Your task to perform on an android device: Open Google Chrome and click the shortcut for Amazon.com Image 0: 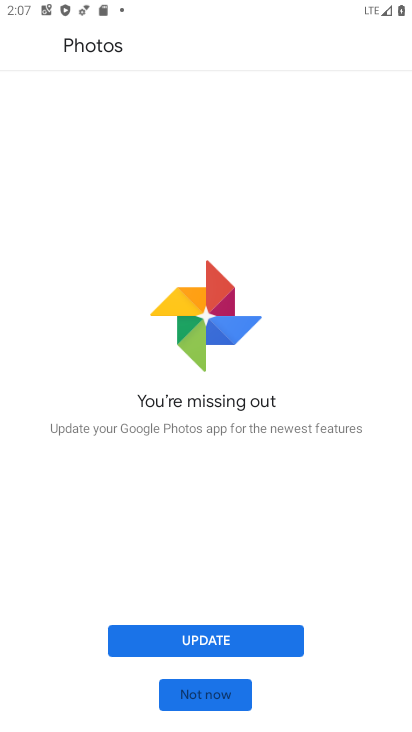
Step 0: press home button
Your task to perform on an android device: Open Google Chrome and click the shortcut for Amazon.com Image 1: 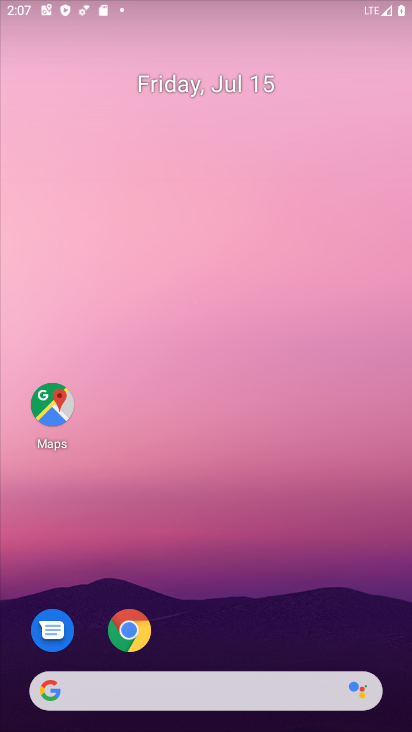
Step 1: drag from (173, 638) to (142, 282)
Your task to perform on an android device: Open Google Chrome and click the shortcut for Amazon.com Image 2: 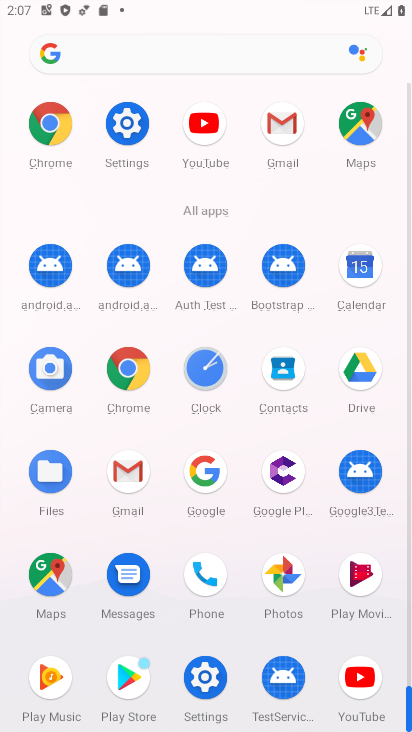
Step 2: click (119, 372)
Your task to perform on an android device: Open Google Chrome and click the shortcut for Amazon.com Image 3: 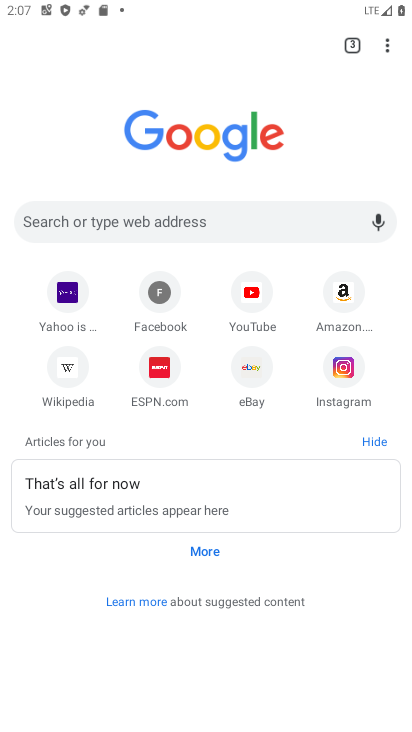
Step 3: click (337, 301)
Your task to perform on an android device: Open Google Chrome and click the shortcut for Amazon.com Image 4: 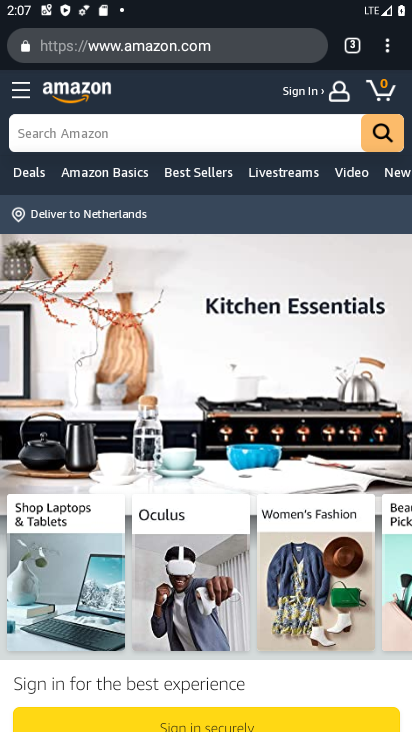
Step 4: task complete